Your task to perform on an android device: turn on bluetooth scan Image 0: 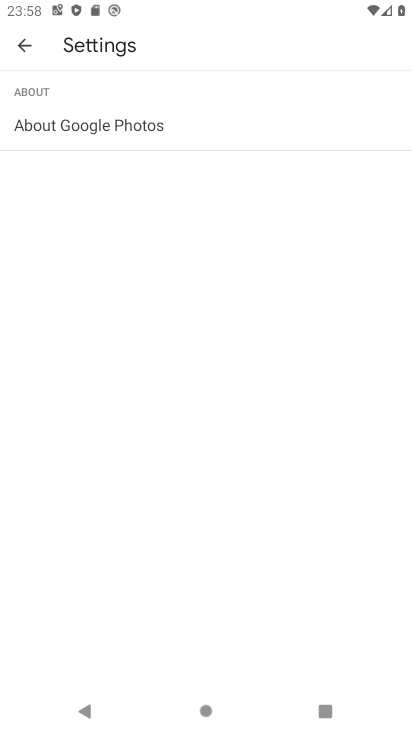
Step 0: press home button
Your task to perform on an android device: turn on bluetooth scan Image 1: 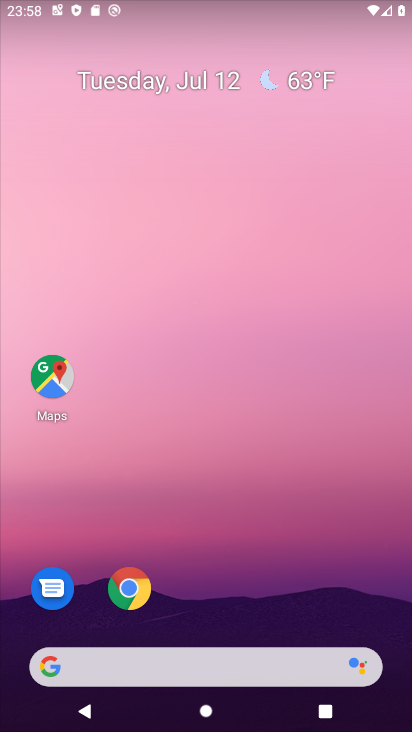
Step 1: drag from (45, 702) to (188, 44)
Your task to perform on an android device: turn on bluetooth scan Image 2: 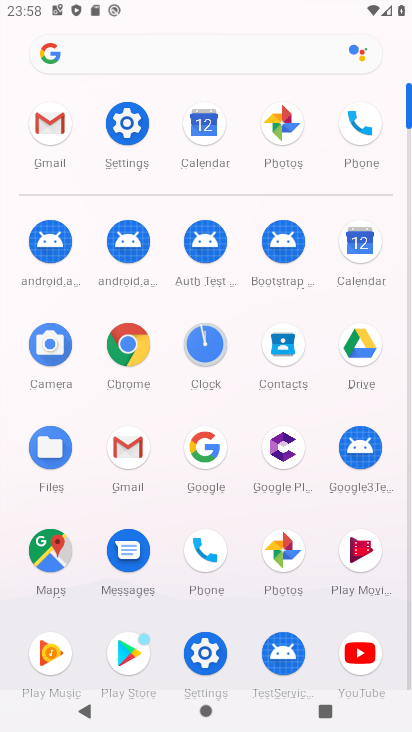
Step 2: click (194, 657)
Your task to perform on an android device: turn on bluetooth scan Image 3: 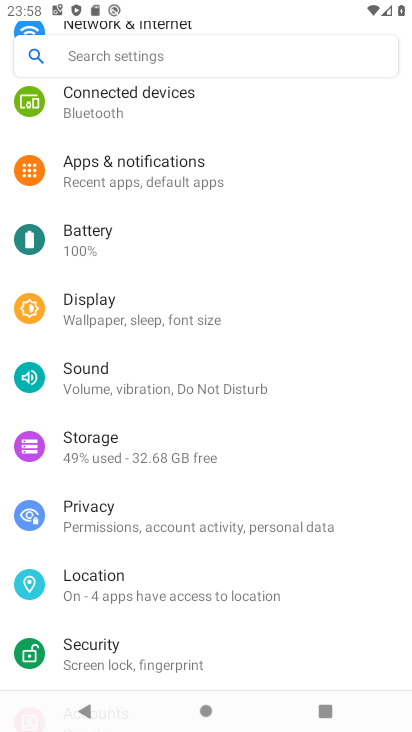
Step 3: click (149, 97)
Your task to perform on an android device: turn on bluetooth scan Image 4: 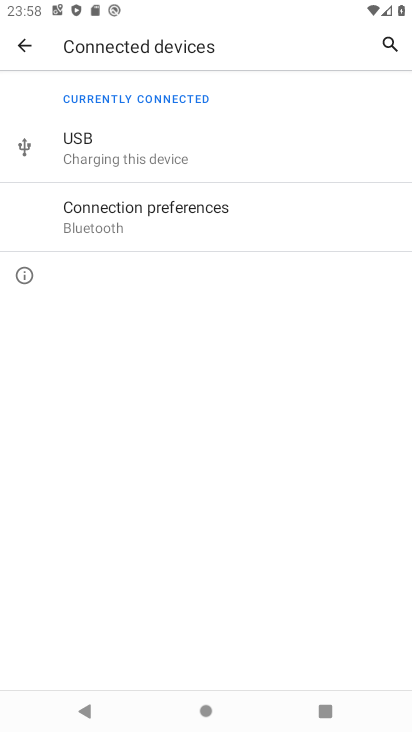
Step 4: click (134, 216)
Your task to perform on an android device: turn on bluetooth scan Image 5: 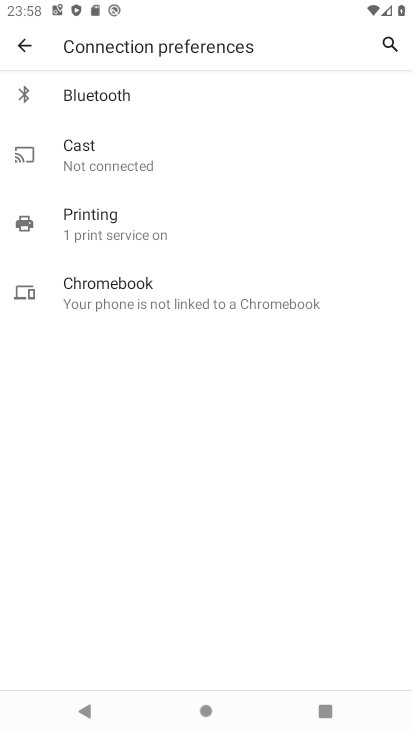
Step 5: click (109, 95)
Your task to perform on an android device: turn on bluetooth scan Image 6: 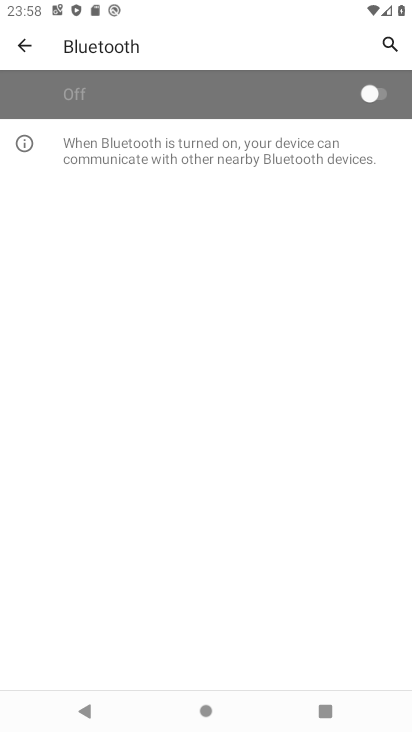
Step 6: click (379, 95)
Your task to perform on an android device: turn on bluetooth scan Image 7: 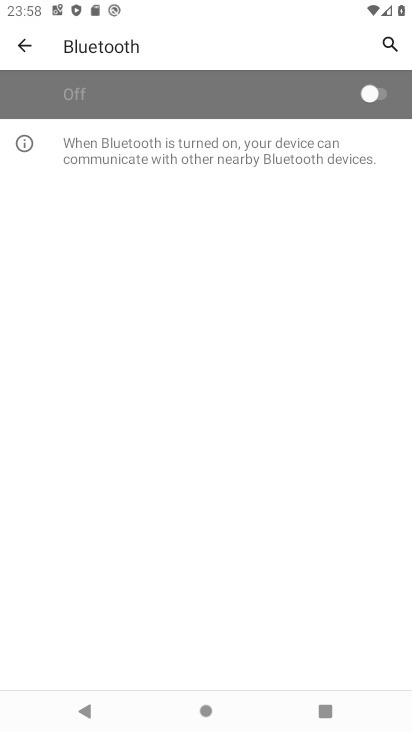
Step 7: task complete